Your task to perform on an android device: Show me popular videos on Youtube Image 0: 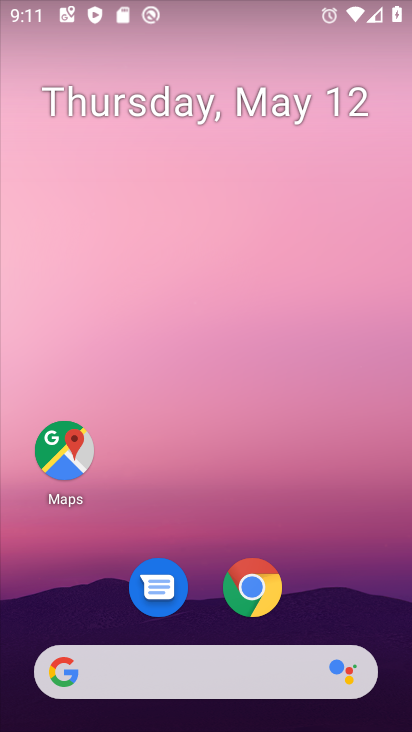
Step 0: drag from (344, 583) to (314, 268)
Your task to perform on an android device: Show me popular videos on Youtube Image 1: 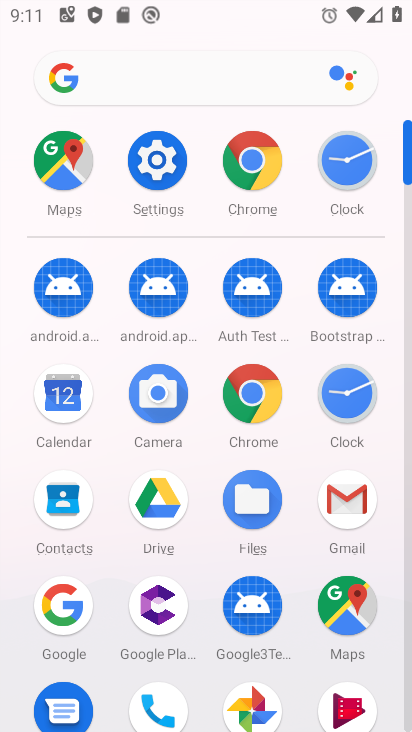
Step 1: drag from (300, 584) to (303, 191)
Your task to perform on an android device: Show me popular videos on Youtube Image 2: 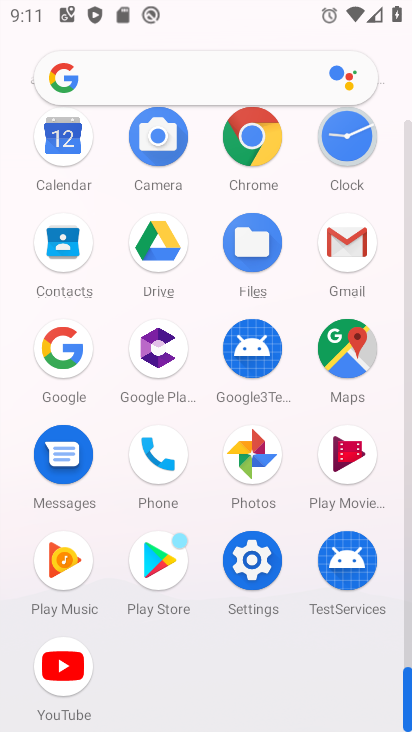
Step 2: click (44, 673)
Your task to perform on an android device: Show me popular videos on Youtube Image 3: 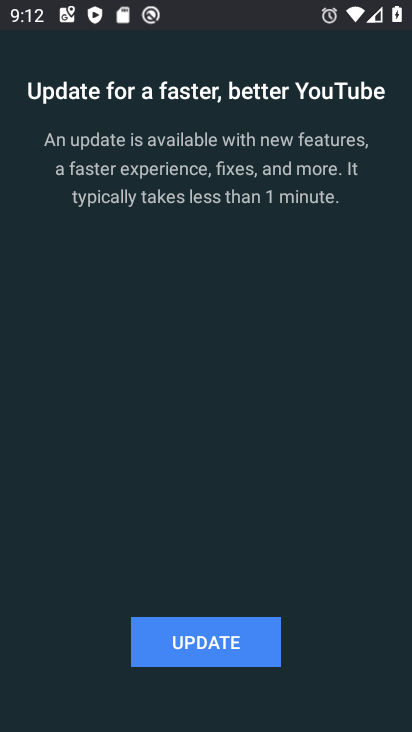
Step 3: task complete